Your task to perform on an android device: Open Yahoo.com Image 0: 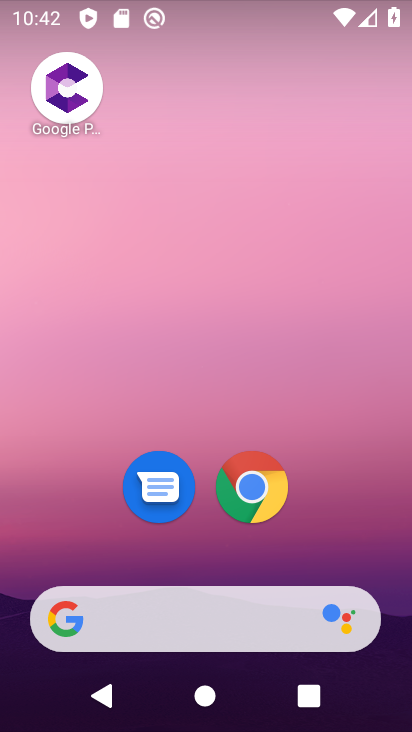
Step 0: click (262, 515)
Your task to perform on an android device: Open Yahoo.com Image 1: 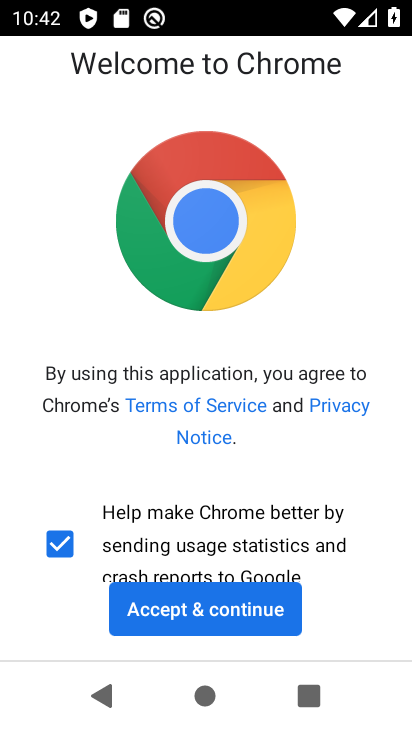
Step 1: click (237, 628)
Your task to perform on an android device: Open Yahoo.com Image 2: 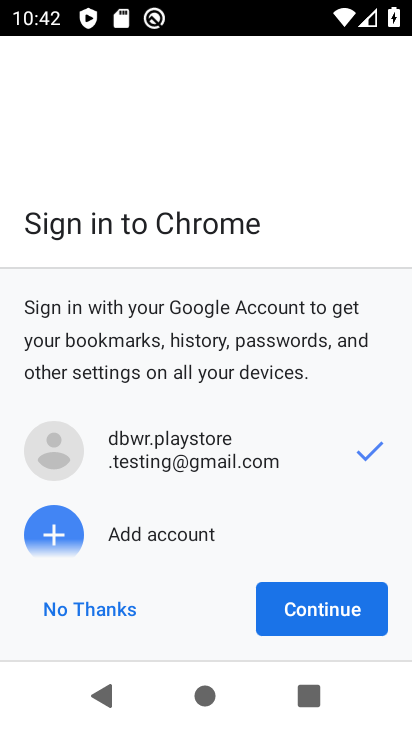
Step 2: click (355, 621)
Your task to perform on an android device: Open Yahoo.com Image 3: 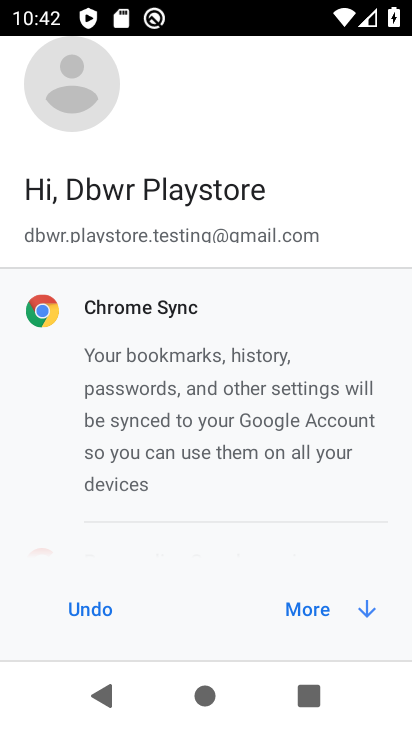
Step 3: click (355, 609)
Your task to perform on an android device: Open Yahoo.com Image 4: 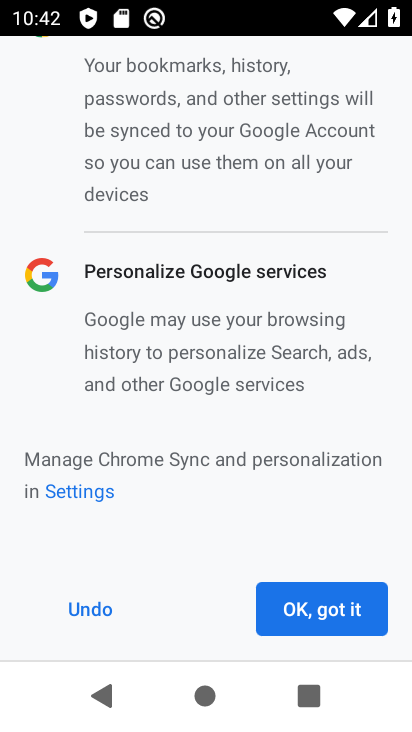
Step 4: click (355, 609)
Your task to perform on an android device: Open Yahoo.com Image 5: 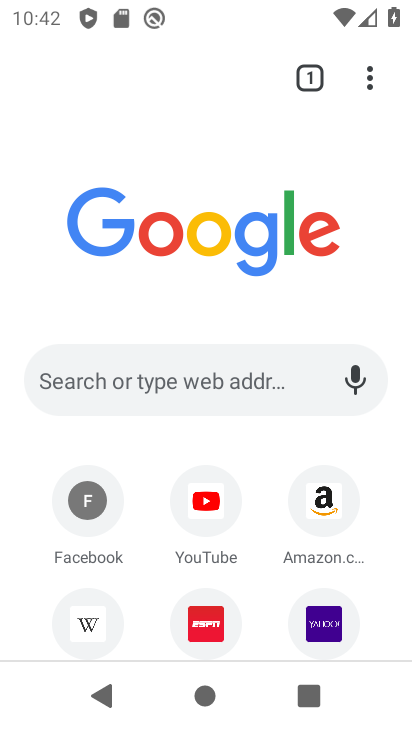
Step 5: click (193, 84)
Your task to perform on an android device: Open Yahoo.com Image 6: 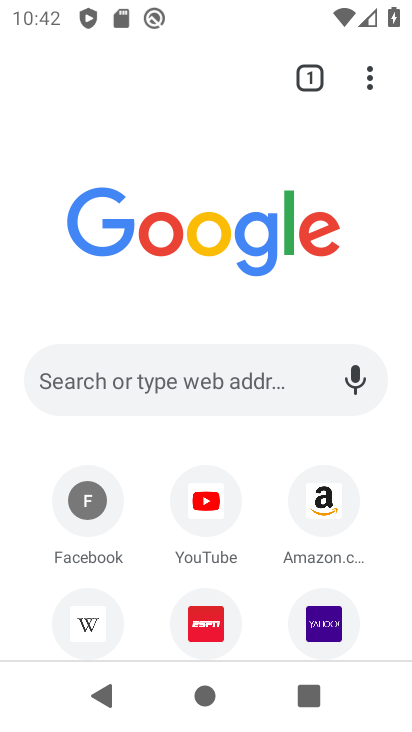
Step 6: click (212, 369)
Your task to perform on an android device: Open Yahoo.com Image 7: 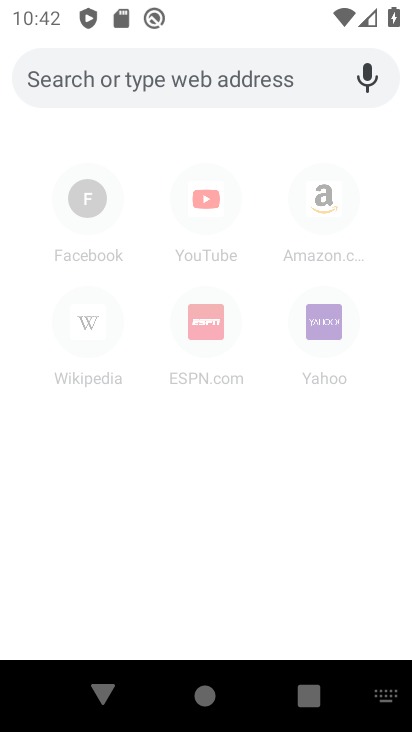
Step 7: type " Yahoo.comv"
Your task to perform on an android device: Open Yahoo.com Image 8: 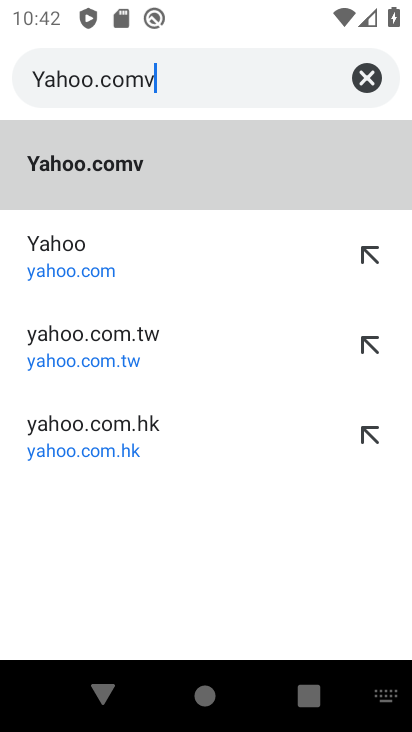
Step 8: click (50, 173)
Your task to perform on an android device: Open Yahoo.com Image 9: 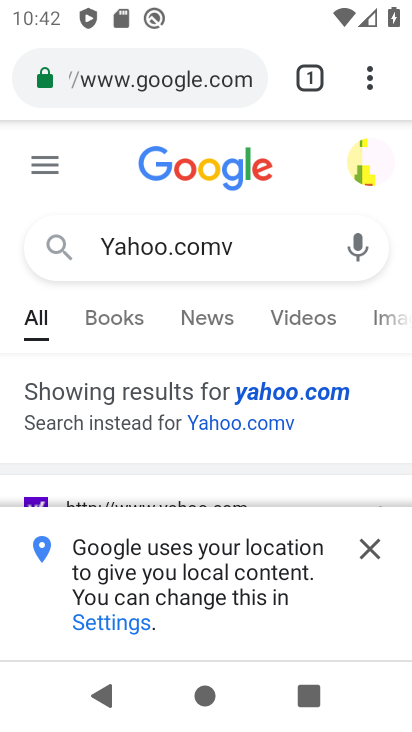
Step 9: drag from (108, 455) to (194, 190)
Your task to perform on an android device: Open Yahoo.com Image 10: 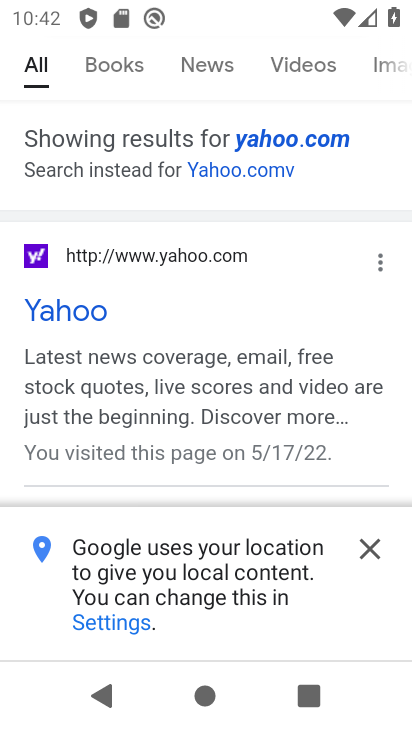
Step 10: click (114, 311)
Your task to perform on an android device: Open Yahoo.com Image 11: 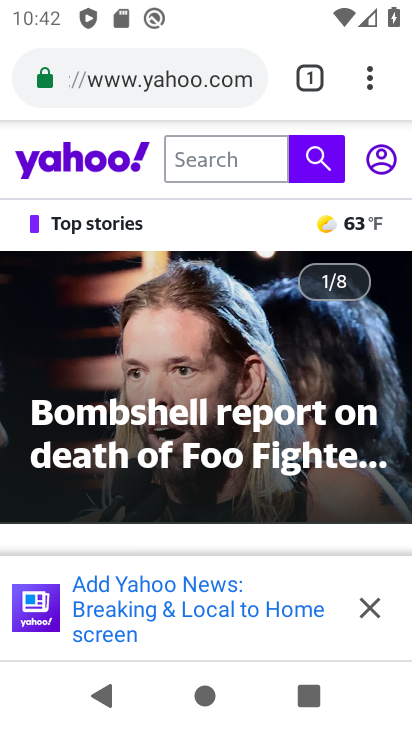
Step 11: task complete